Your task to perform on an android device: Do I have any events today? Image 0: 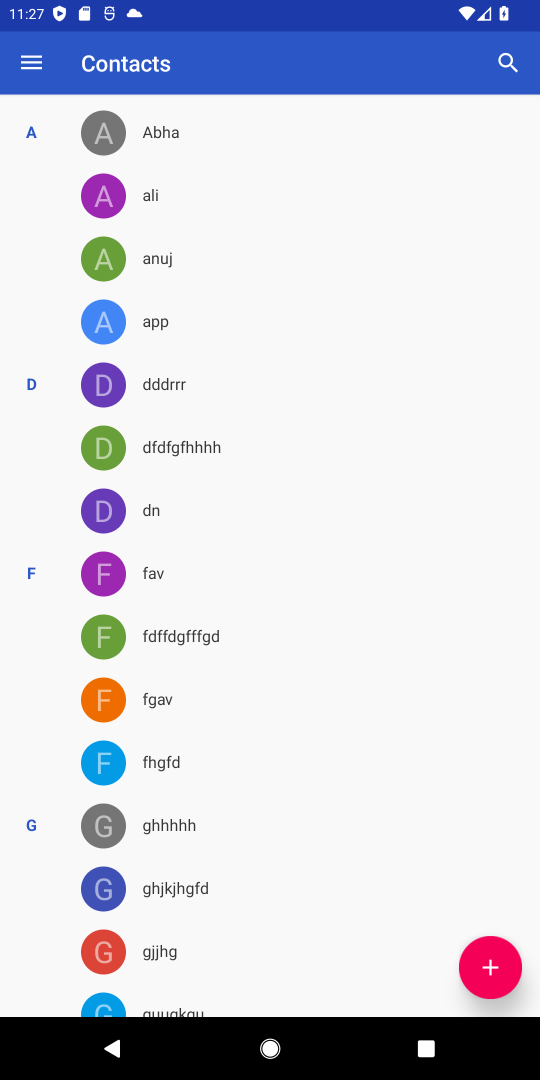
Step 0: press home button
Your task to perform on an android device: Do I have any events today? Image 1: 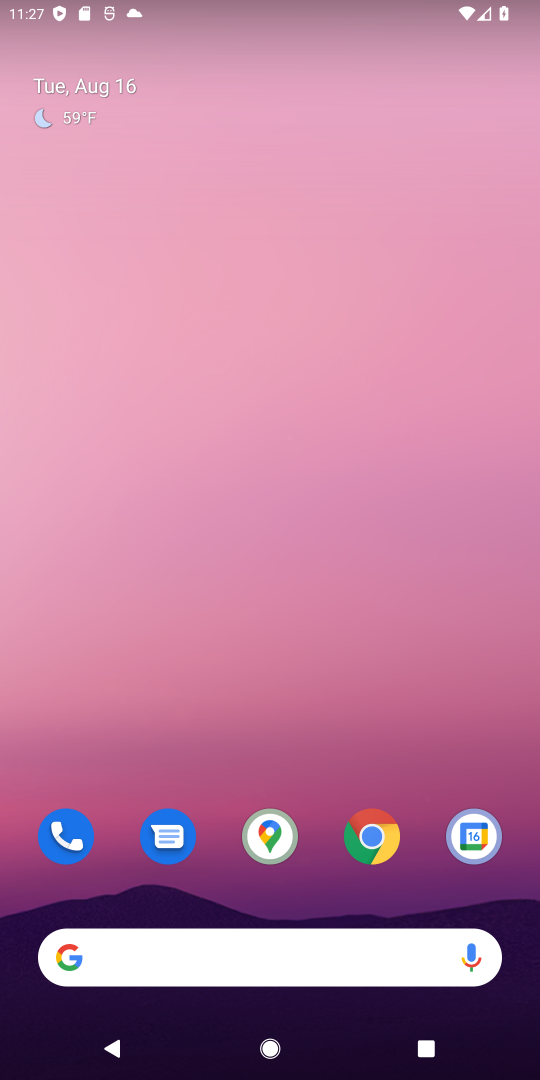
Step 1: drag from (223, 957) to (219, 123)
Your task to perform on an android device: Do I have any events today? Image 2: 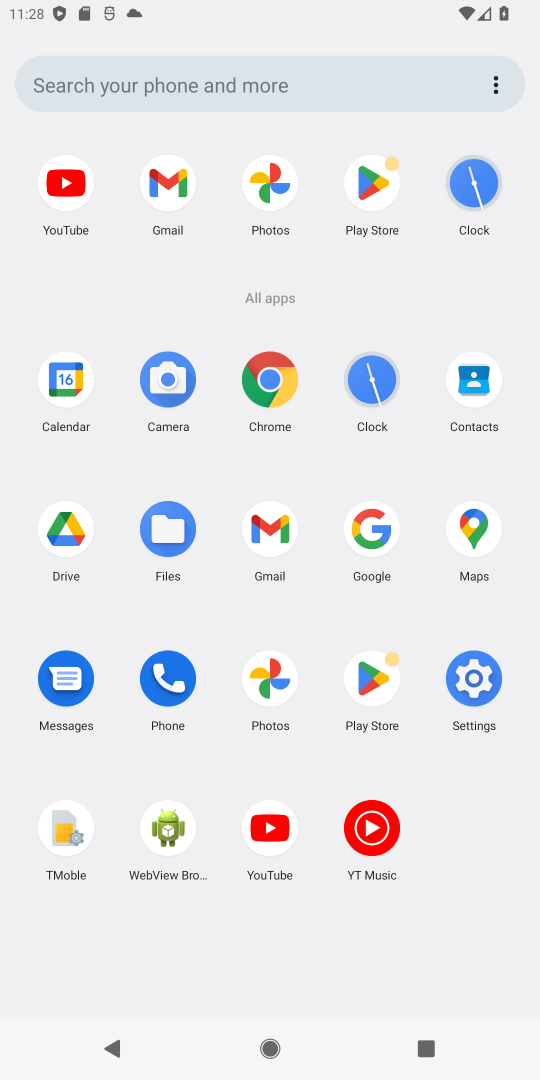
Step 2: click (66, 379)
Your task to perform on an android device: Do I have any events today? Image 3: 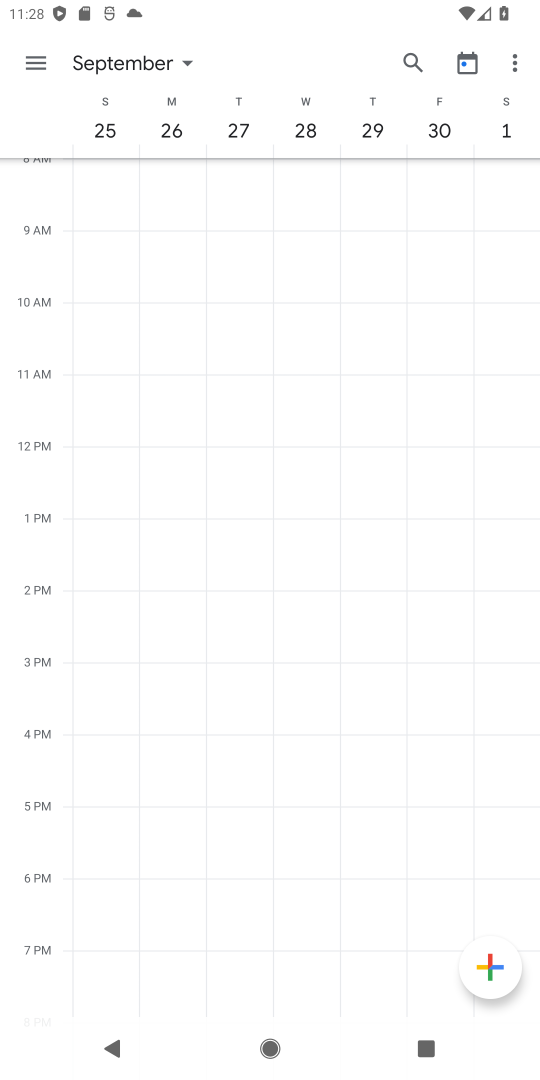
Step 3: click (468, 64)
Your task to perform on an android device: Do I have any events today? Image 4: 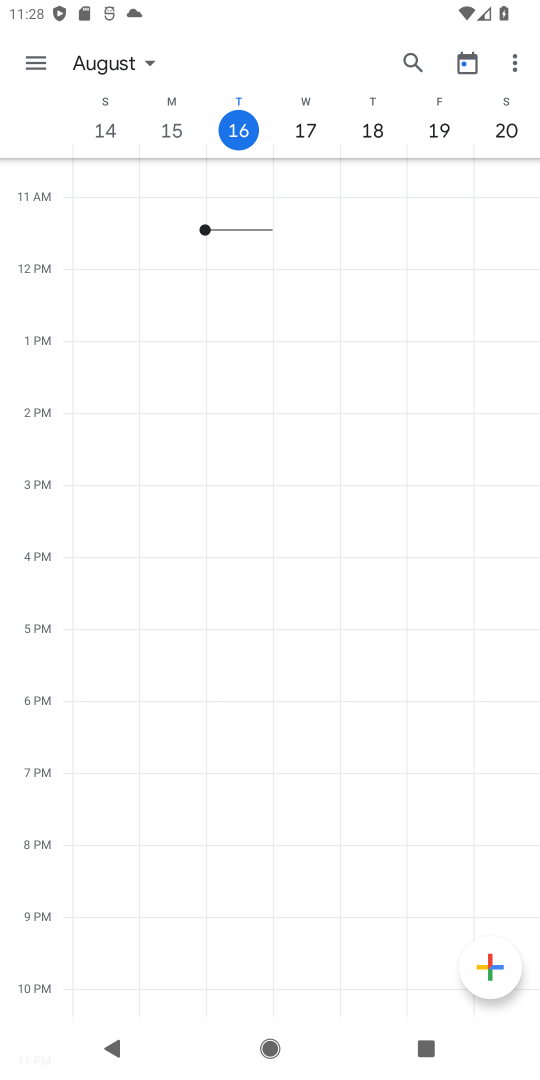
Step 4: click (146, 62)
Your task to perform on an android device: Do I have any events today? Image 5: 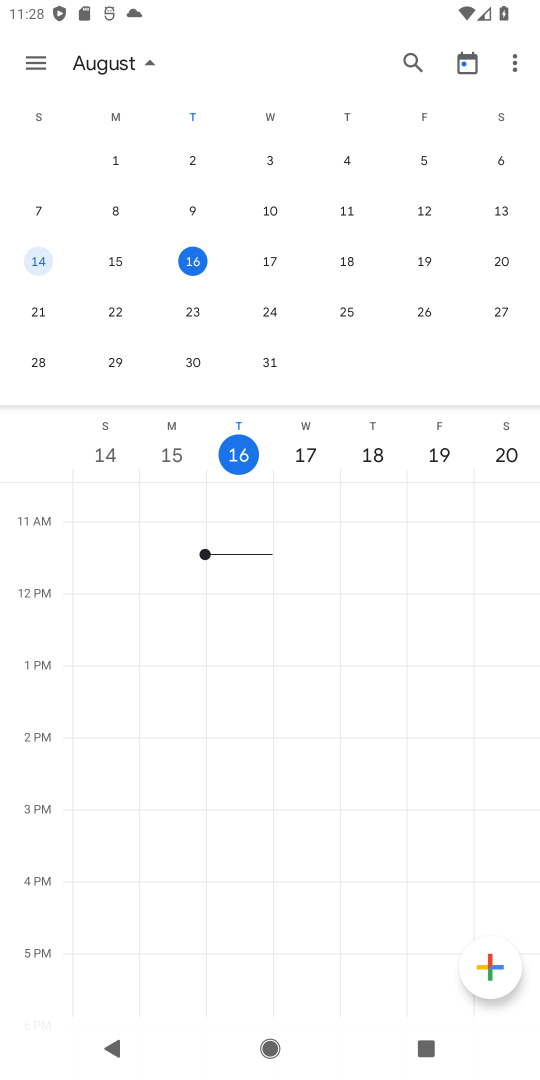
Step 5: click (199, 255)
Your task to perform on an android device: Do I have any events today? Image 6: 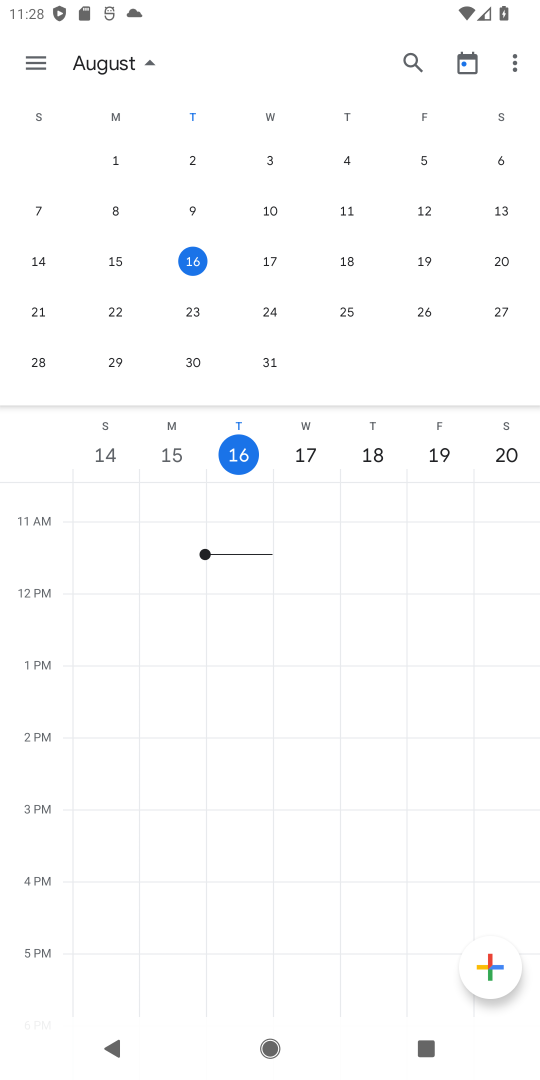
Step 6: click (43, 61)
Your task to perform on an android device: Do I have any events today? Image 7: 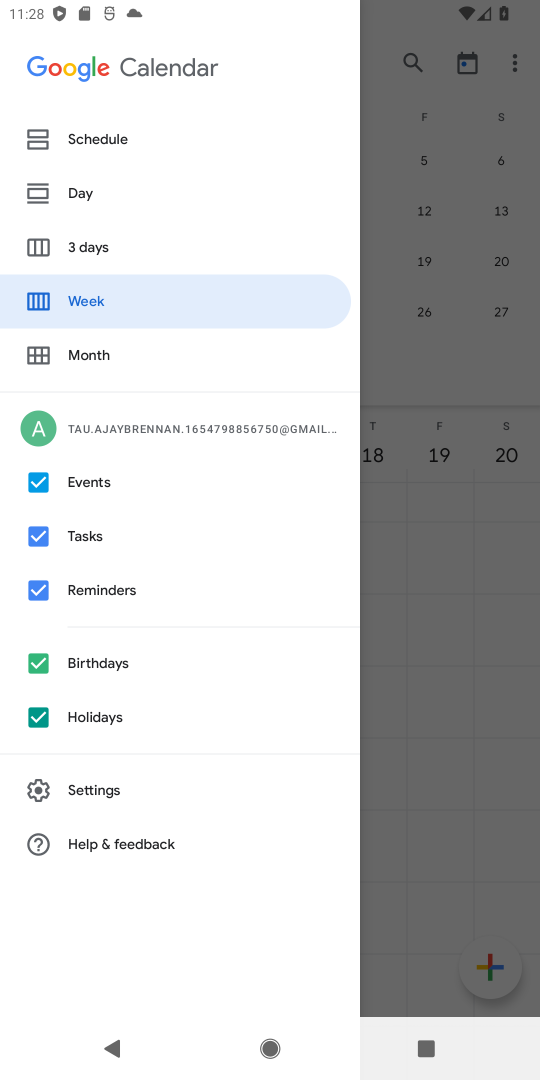
Step 7: click (116, 143)
Your task to perform on an android device: Do I have any events today? Image 8: 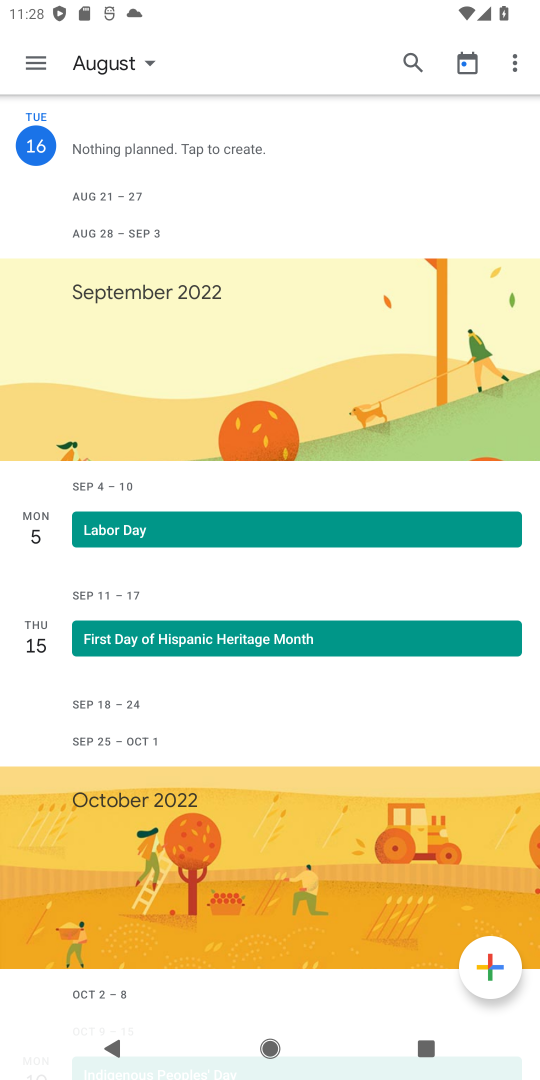
Step 8: task complete